Your task to perform on an android device: change your default location settings in chrome Image 0: 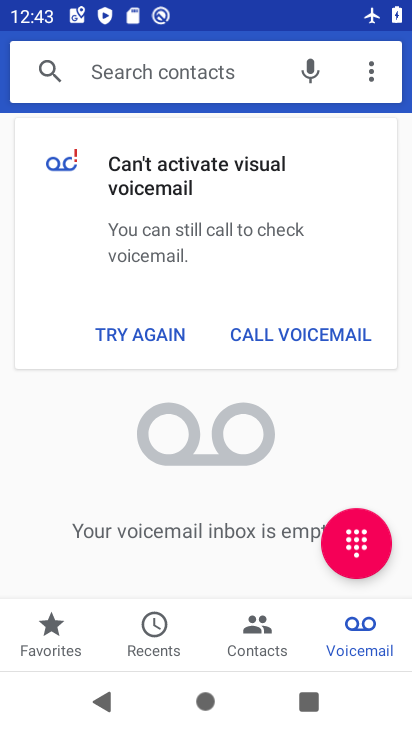
Step 0: press home button
Your task to perform on an android device: change your default location settings in chrome Image 1: 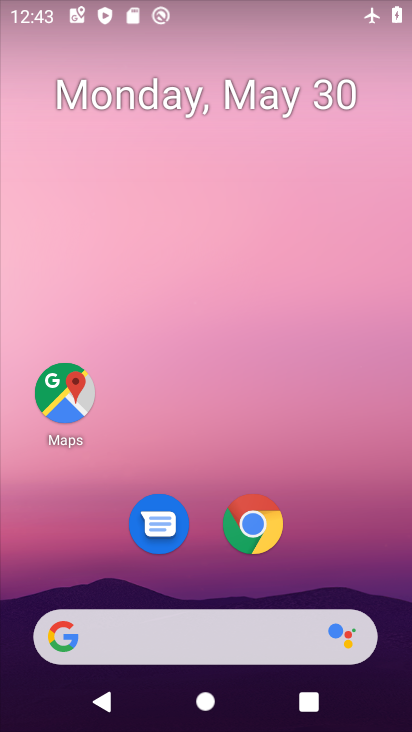
Step 1: click (260, 520)
Your task to perform on an android device: change your default location settings in chrome Image 2: 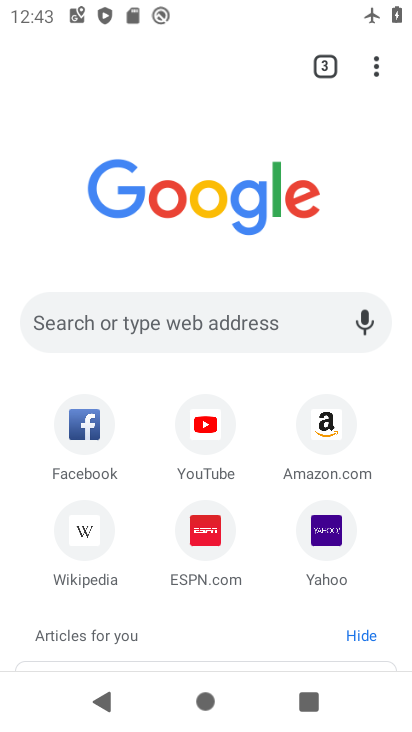
Step 2: click (372, 67)
Your task to perform on an android device: change your default location settings in chrome Image 3: 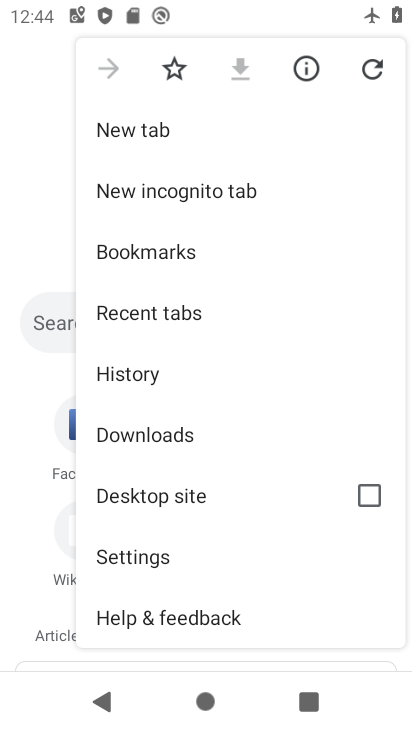
Step 3: click (193, 562)
Your task to perform on an android device: change your default location settings in chrome Image 4: 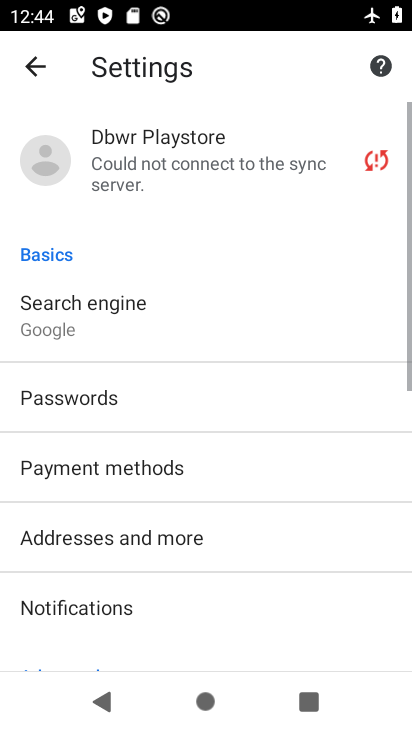
Step 4: drag from (278, 449) to (294, 134)
Your task to perform on an android device: change your default location settings in chrome Image 5: 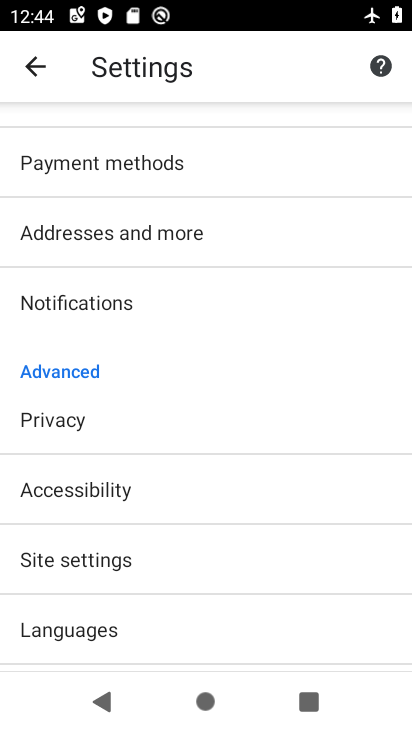
Step 5: click (205, 564)
Your task to perform on an android device: change your default location settings in chrome Image 6: 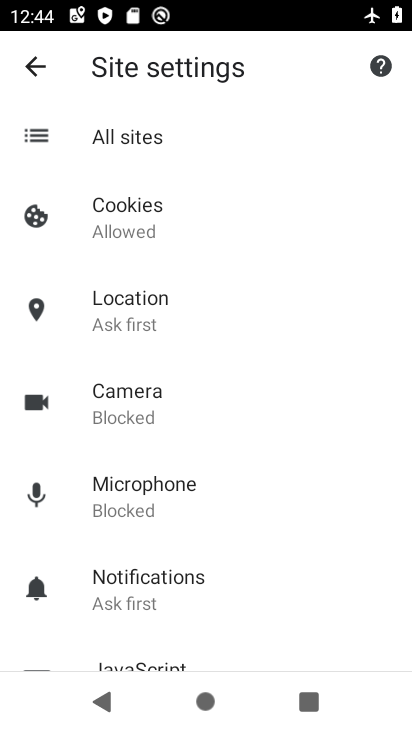
Step 6: click (226, 306)
Your task to perform on an android device: change your default location settings in chrome Image 7: 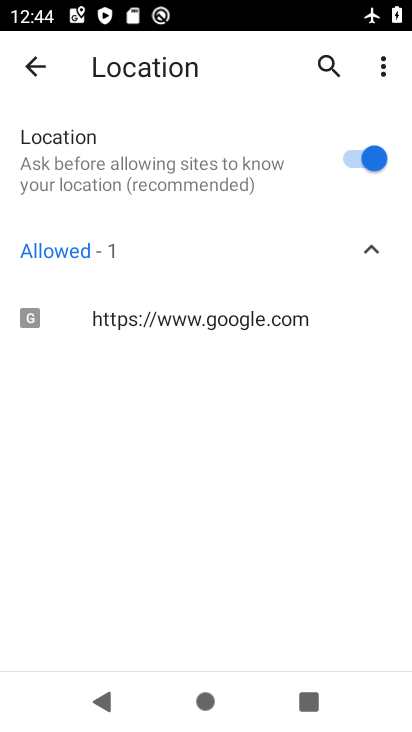
Step 7: click (353, 154)
Your task to perform on an android device: change your default location settings in chrome Image 8: 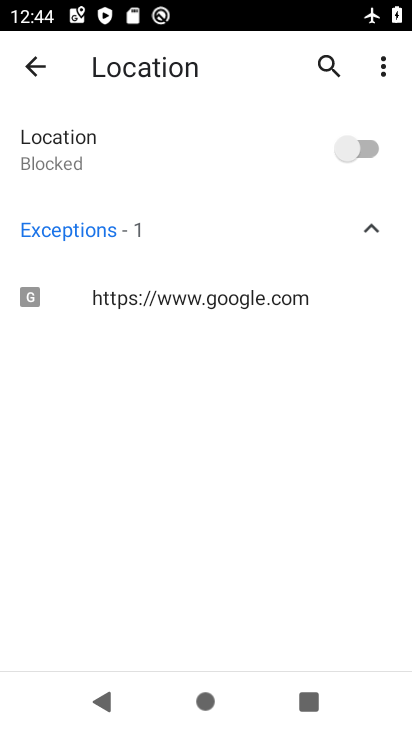
Step 8: task complete